Your task to perform on an android device: change the clock style Image 0: 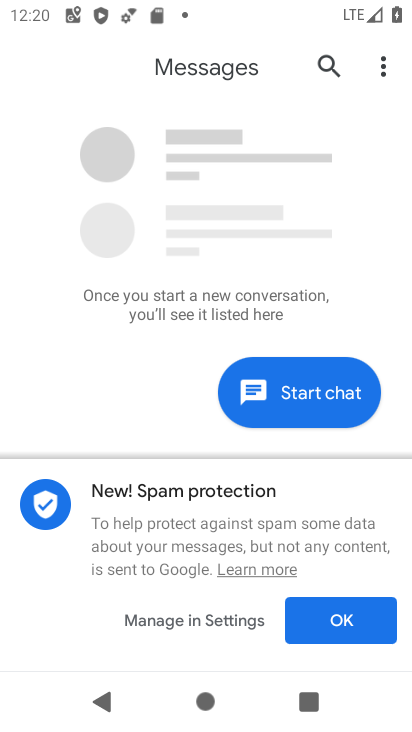
Step 0: press home button
Your task to perform on an android device: change the clock style Image 1: 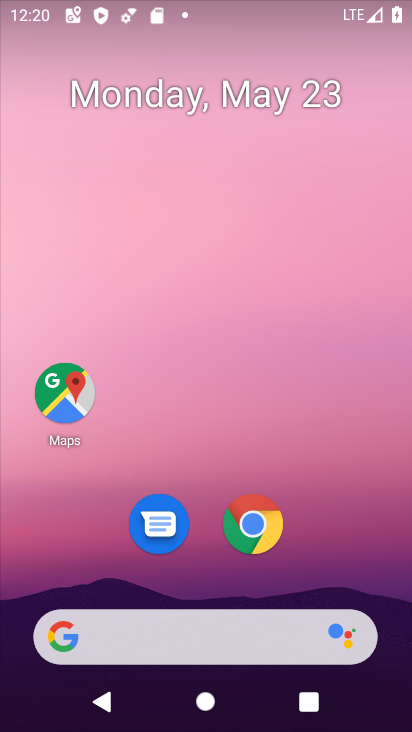
Step 1: drag from (202, 543) to (250, 46)
Your task to perform on an android device: change the clock style Image 2: 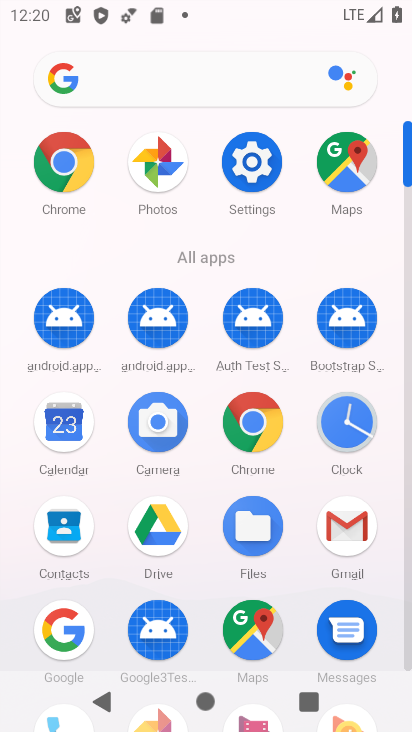
Step 2: click (350, 423)
Your task to perform on an android device: change the clock style Image 3: 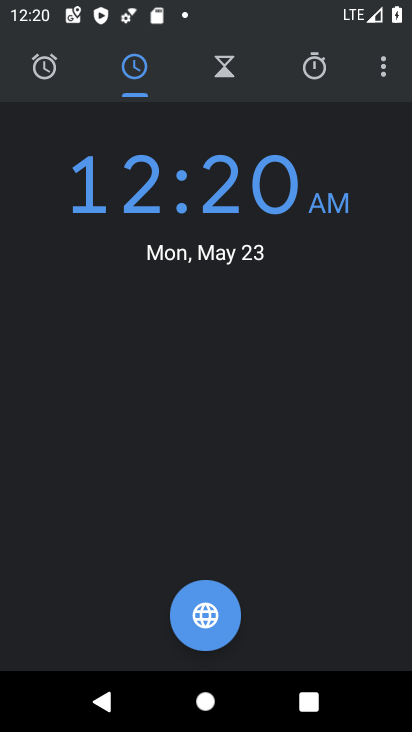
Step 3: click (383, 71)
Your task to perform on an android device: change the clock style Image 4: 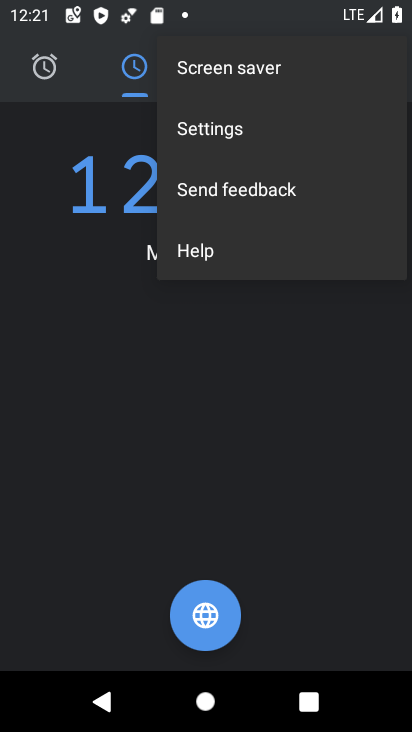
Step 4: click (267, 130)
Your task to perform on an android device: change the clock style Image 5: 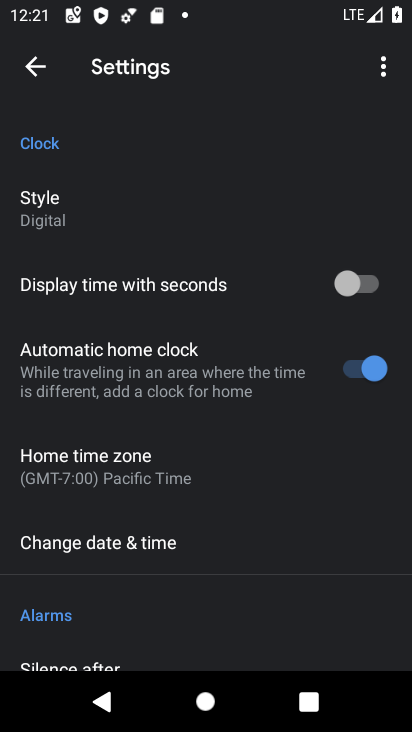
Step 5: click (85, 212)
Your task to perform on an android device: change the clock style Image 6: 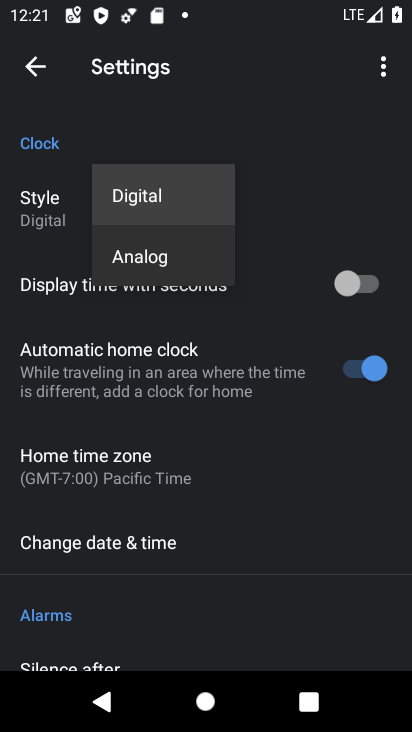
Step 6: click (145, 259)
Your task to perform on an android device: change the clock style Image 7: 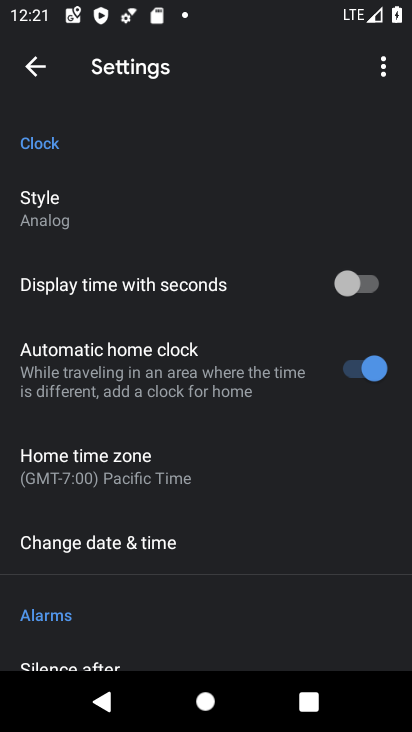
Step 7: click (34, 61)
Your task to perform on an android device: change the clock style Image 8: 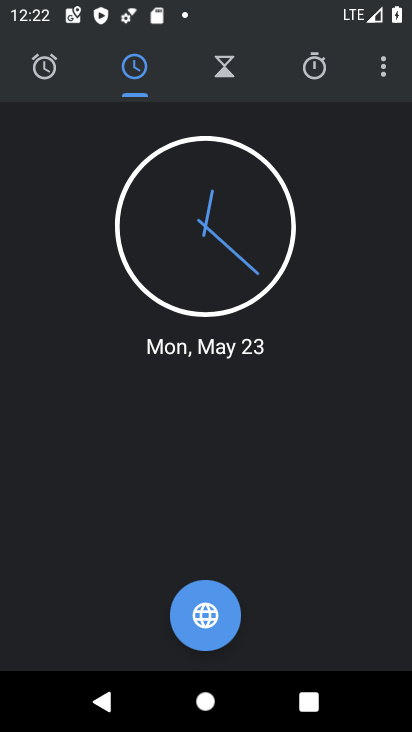
Step 8: task complete